Your task to perform on an android device: Open Google Image 0: 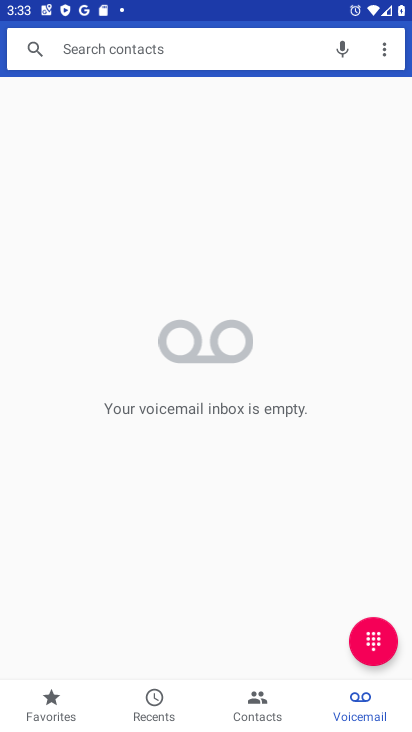
Step 0: press home button
Your task to perform on an android device: Open Google Image 1: 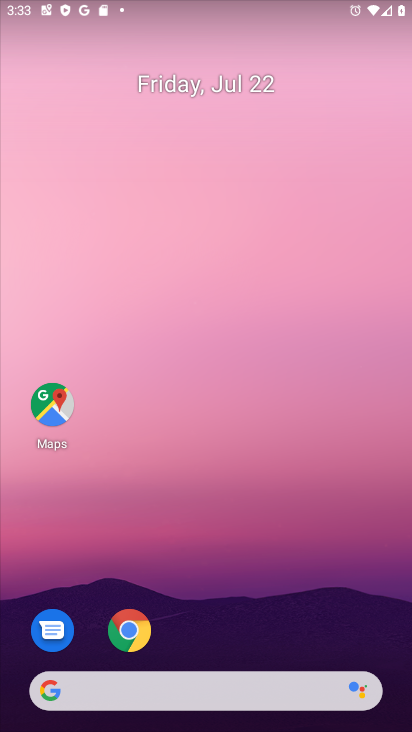
Step 1: drag from (252, 683) to (145, 179)
Your task to perform on an android device: Open Google Image 2: 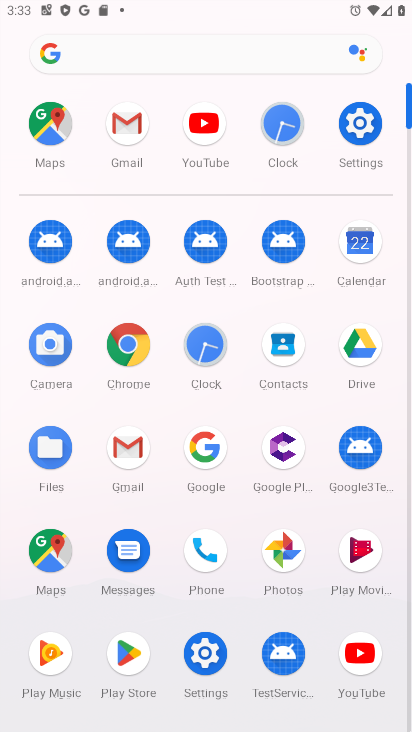
Step 2: click (207, 445)
Your task to perform on an android device: Open Google Image 3: 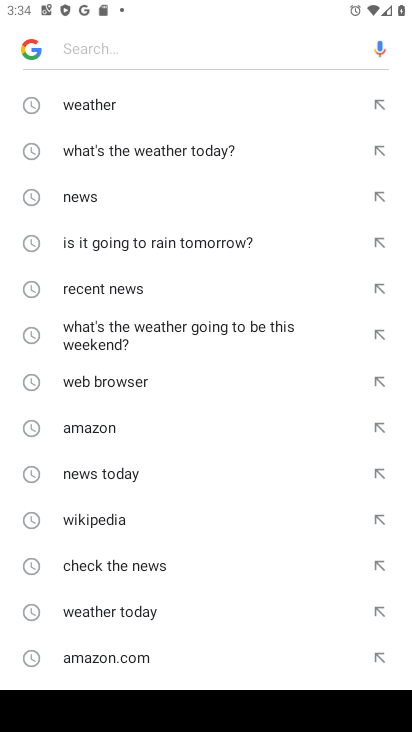
Step 3: task complete